Your task to perform on an android device: open app "Pandora - Music & Podcasts" (install if not already installed) Image 0: 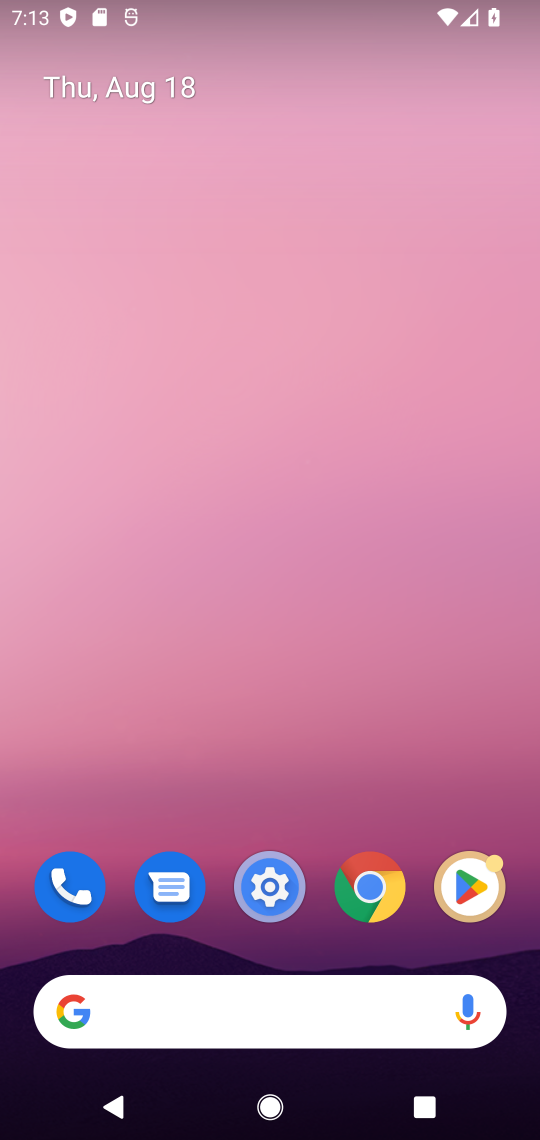
Step 0: click (476, 891)
Your task to perform on an android device: open app "Pandora - Music & Podcasts" (install if not already installed) Image 1: 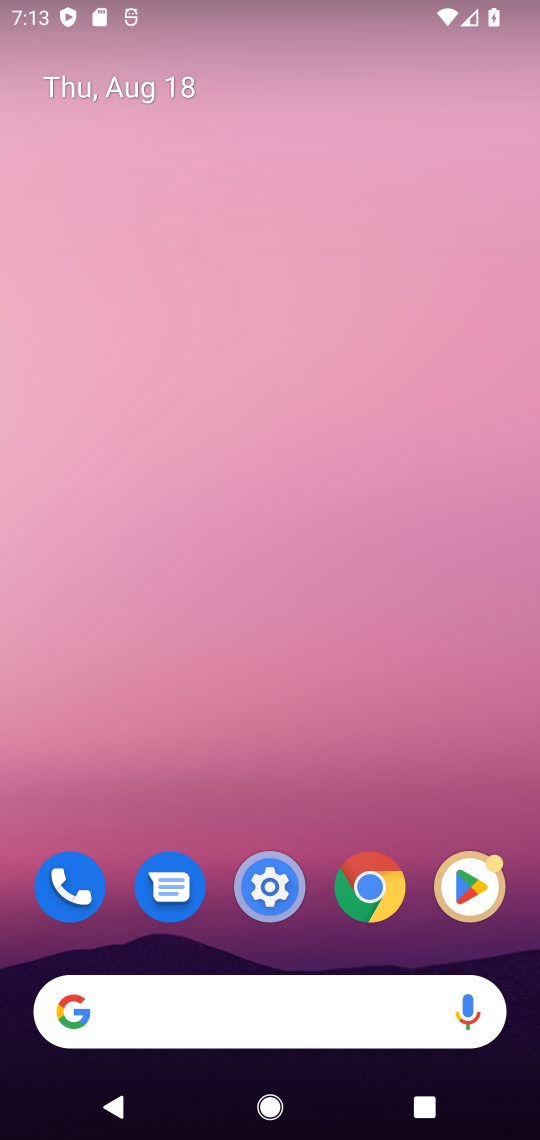
Step 1: click (482, 891)
Your task to perform on an android device: open app "Pandora - Music & Podcasts" (install if not already installed) Image 2: 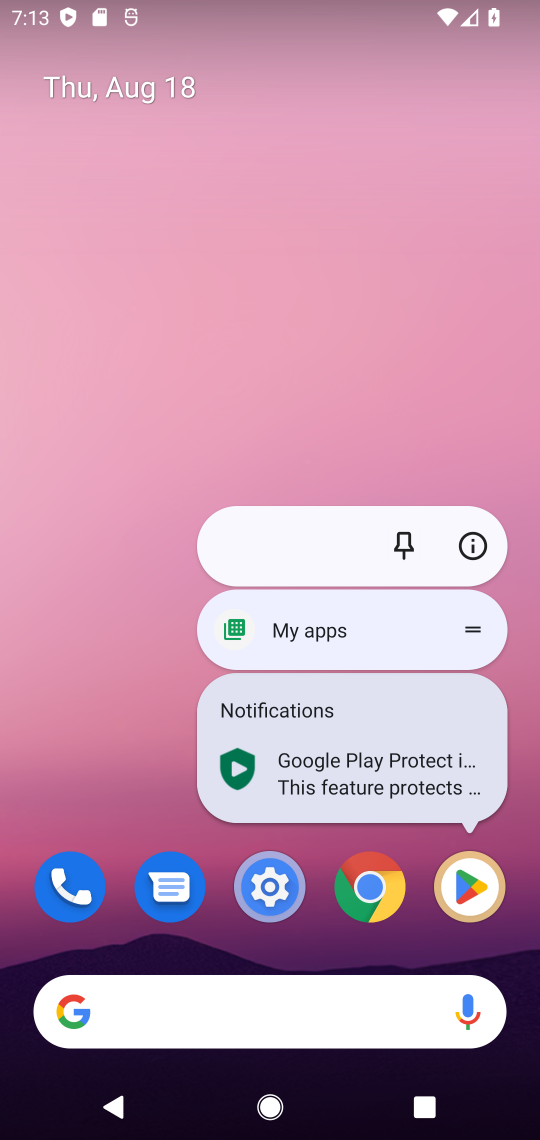
Step 2: click (465, 889)
Your task to perform on an android device: open app "Pandora - Music & Podcasts" (install if not already installed) Image 3: 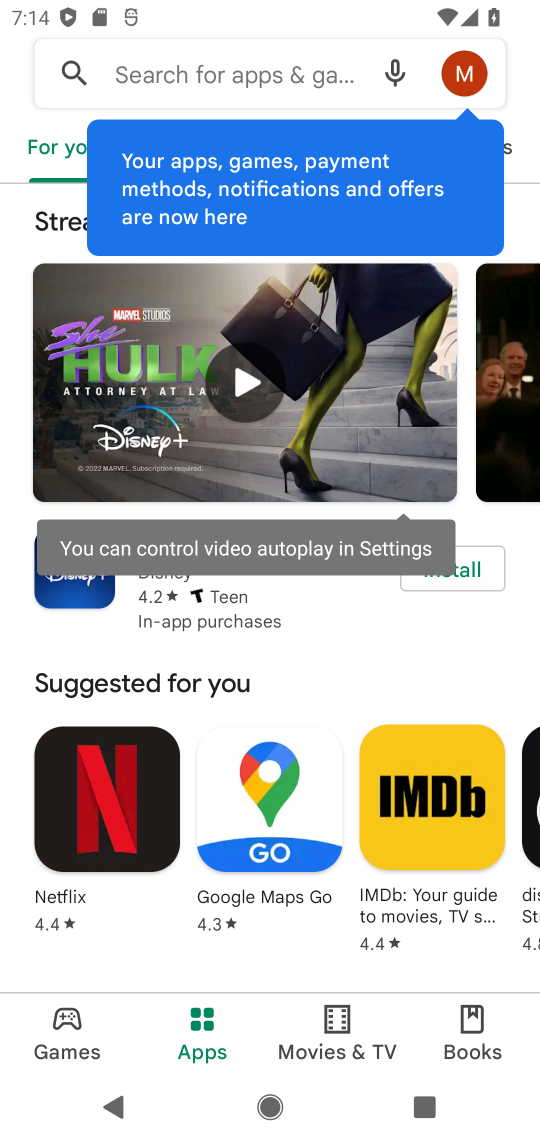
Step 3: click (281, 77)
Your task to perform on an android device: open app "Pandora - Music & Podcasts" (install if not already installed) Image 4: 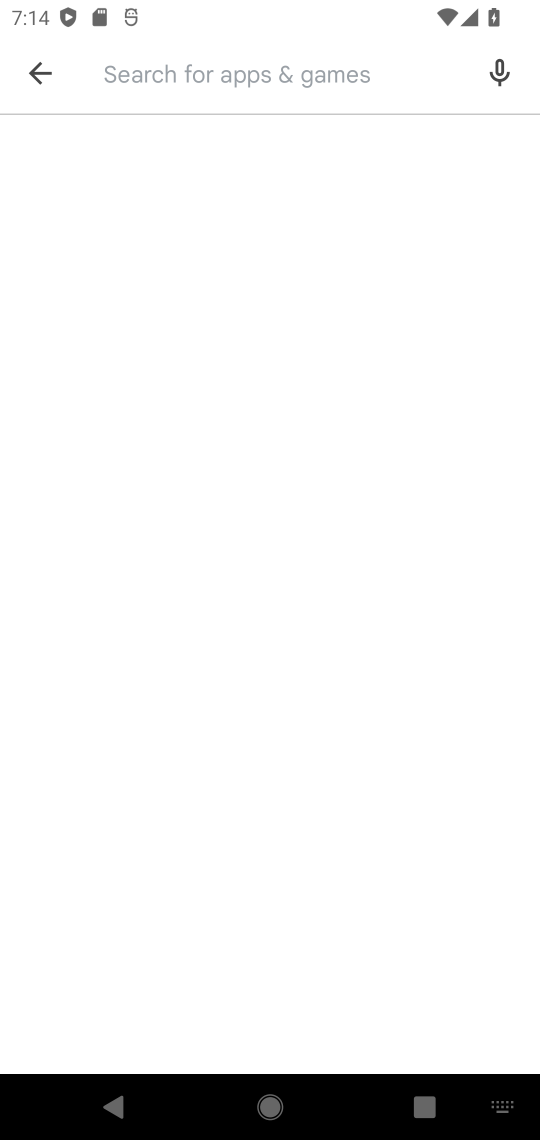
Step 4: type "Pandora - Music & Podcasts"
Your task to perform on an android device: open app "Pandora - Music & Podcasts" (install if not already installed) Image 5: 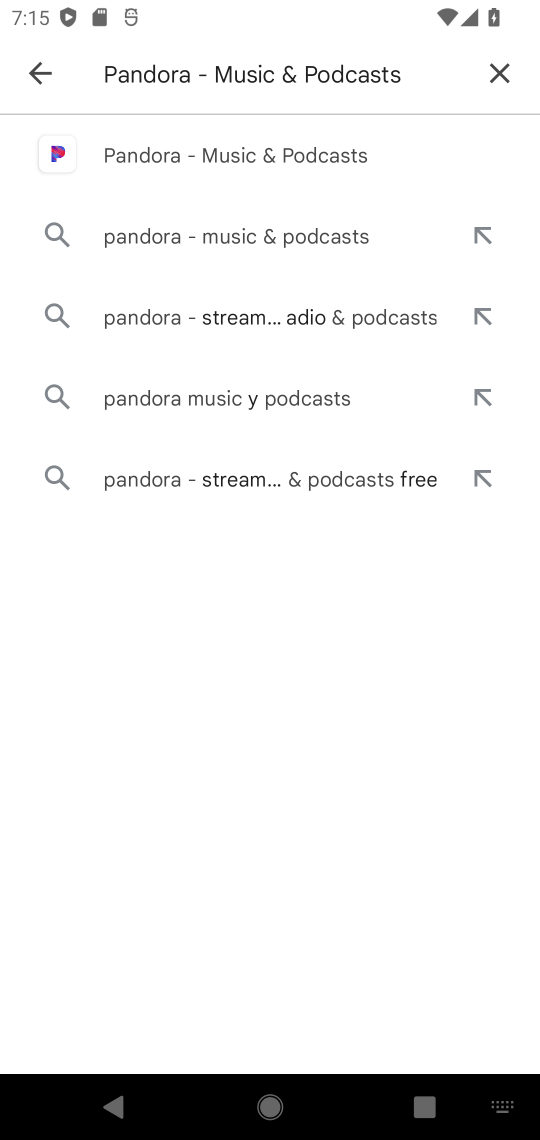
Step 5: click (145, 155)
Your task to perform on an android device: open app "Pandora - Music & Podcasts" (install if not already installed) Image 6: 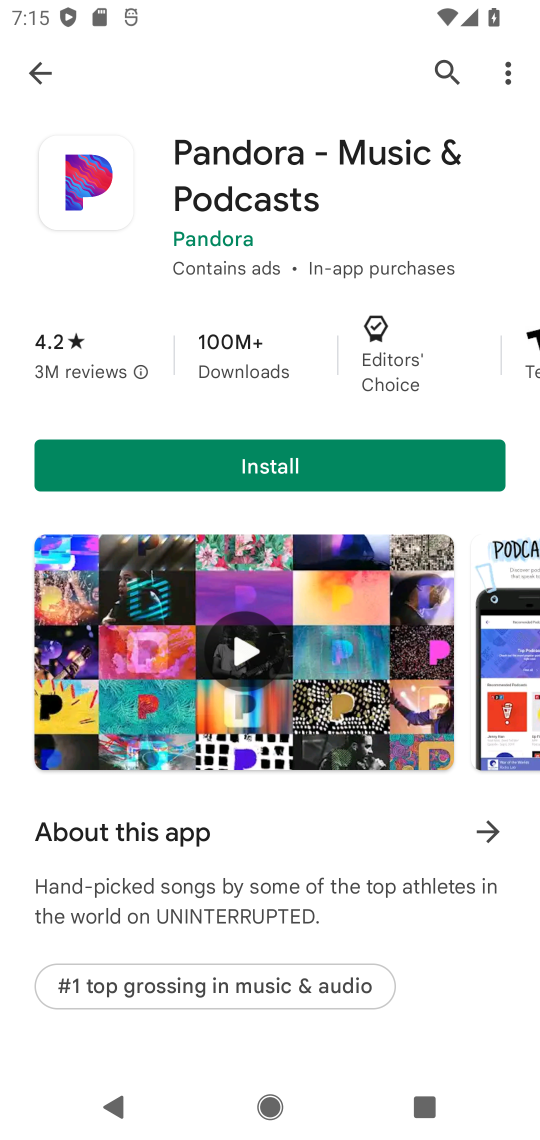
Step 6: click (283, 465)
Your task to perform on an android device: open app "Pandora - Music & Podcasts" (install if not already installed) Image 7: 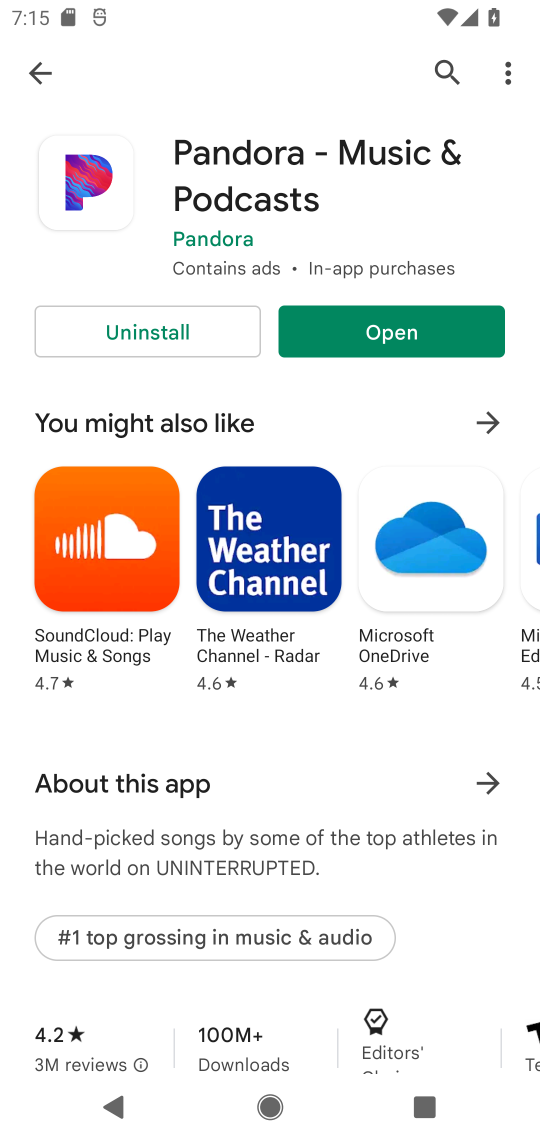
Step 7: click (445, 333)
Your task to perform on an android device: open app "Pandora - Music & Podcasts" (install if not already installed) Image 8: 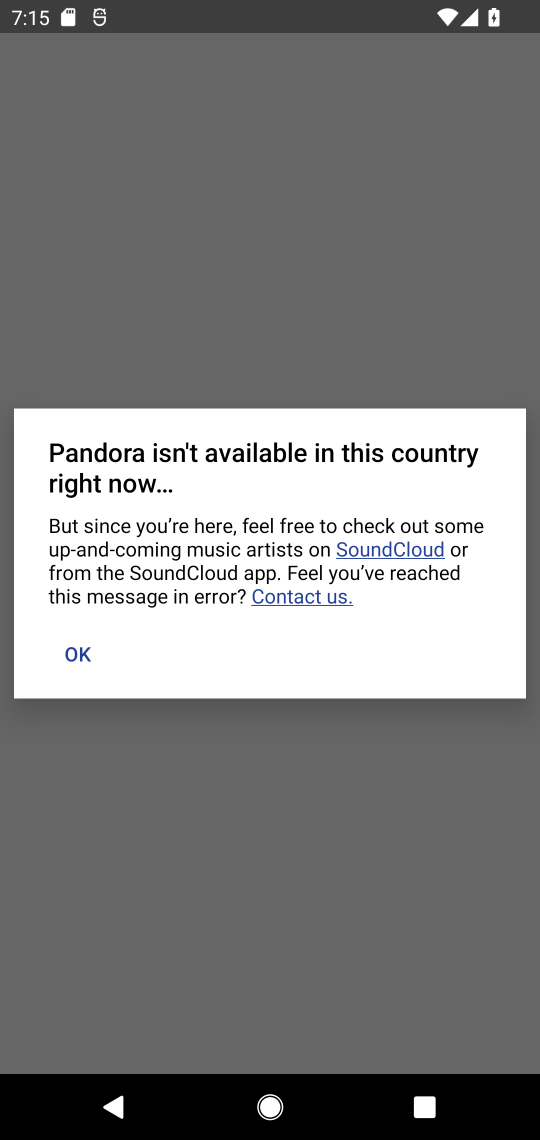
Step 8: click (84, 646)
Your task to perform on an android device: open app "Pandora - Music & Podcasts" (install if not already installed) Image 9: 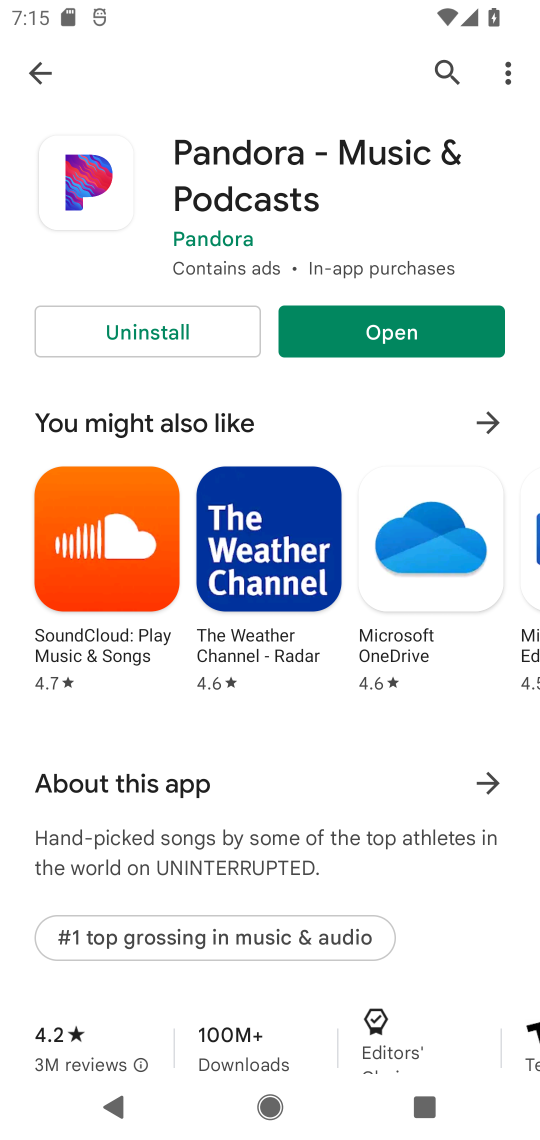
Step 9: click (377, 333)
Your task to perform on an android device: open app "Pandora - Music & Podcasts" (install if not already installed) Image 10: 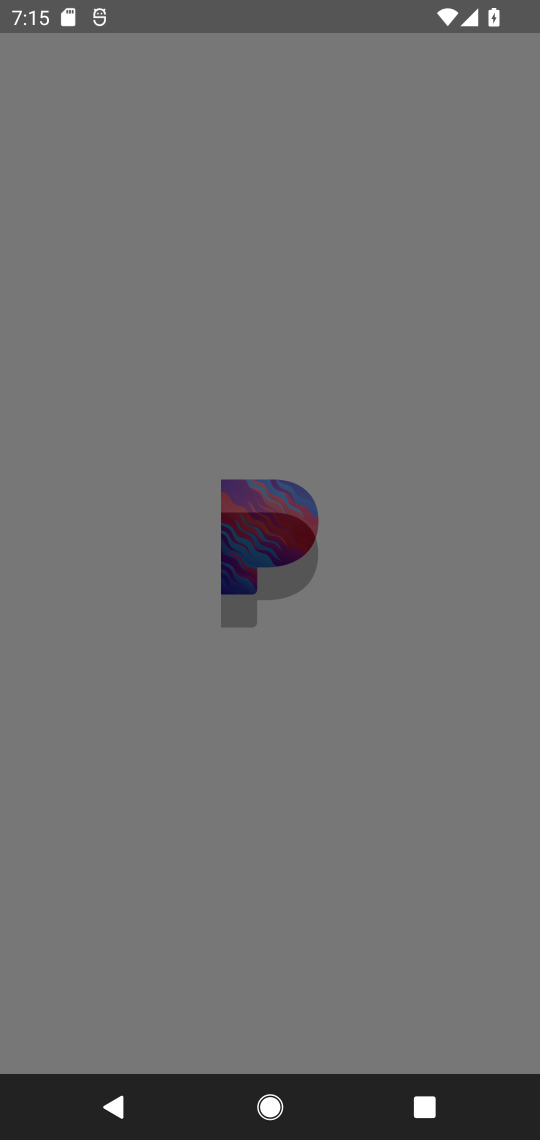
Step 10: task complete